Your task to perform on an android device: Open Chrome and go to the settings page Image 0: 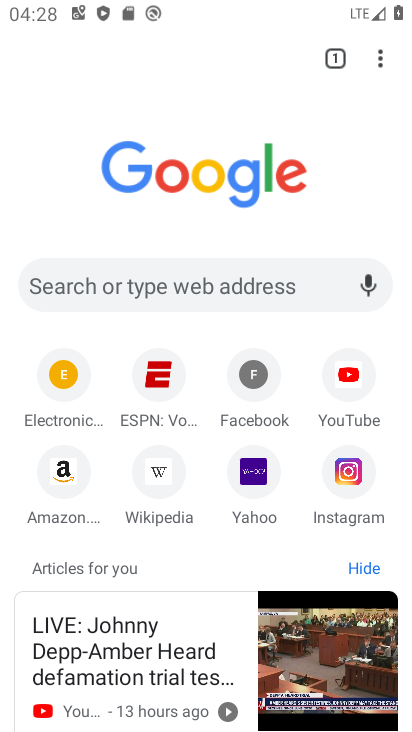
Step 0: drag from (380, 54) to (175, 569)
Your task to perform on an android device: Open Chrome and go to the settings page Image 1: 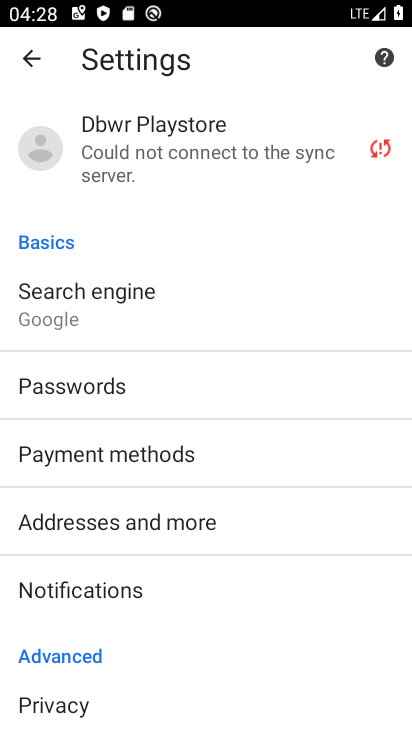
Step 1: task complete